Your task to perform on an android device: Open the map Image 0: 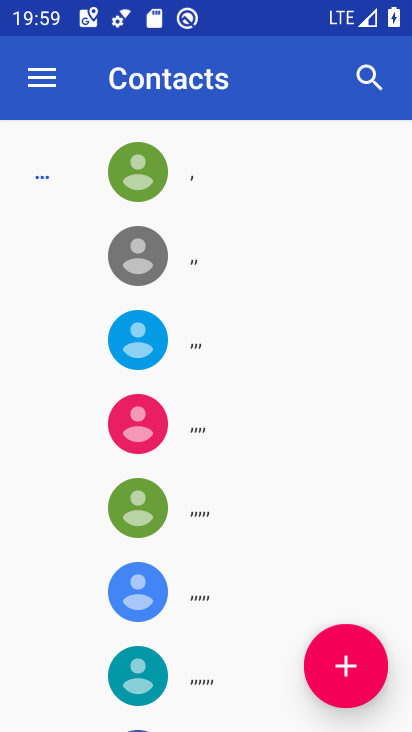
Step 0: press home button
Your task to perform on an android device: Open the map Image 1: 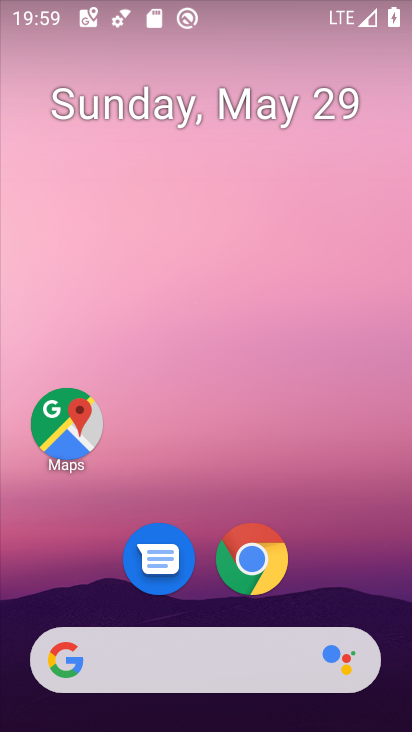
Step 1: drag from (385, 606) to (345, 321)
Your task to perform on an android device: Open the map Image 2: 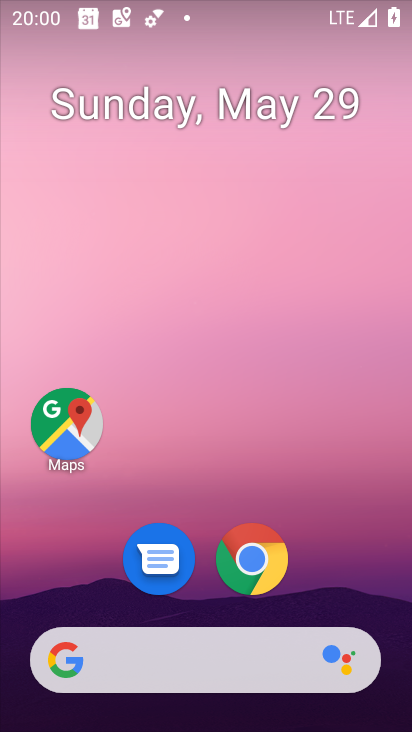
Step 2: drag from (357, 592) to (341, 216)
Your task to perform on an android device: Open the map Image 3: 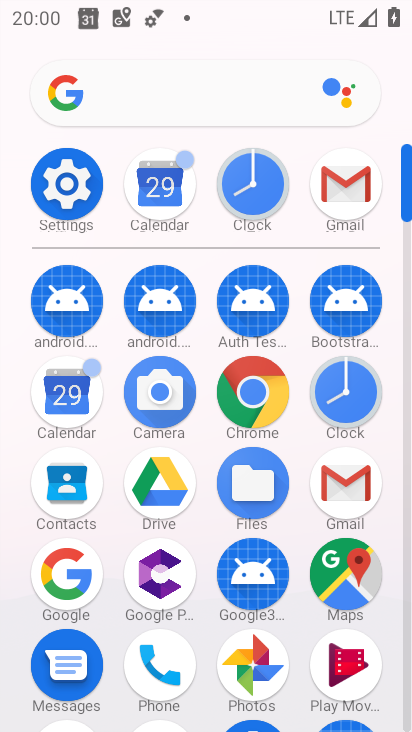
Step 3: click (368, 580)
Your task to perform on an android device: Open the map Image 4: 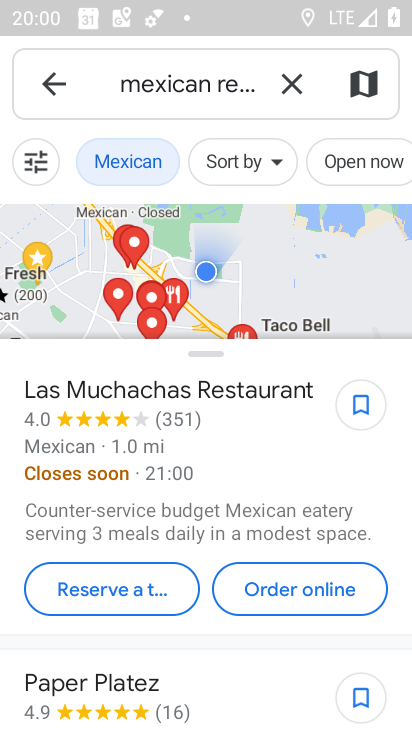
Step 4: task complete